Your task to perform on an android device: Turn off the flashlight Image 0: 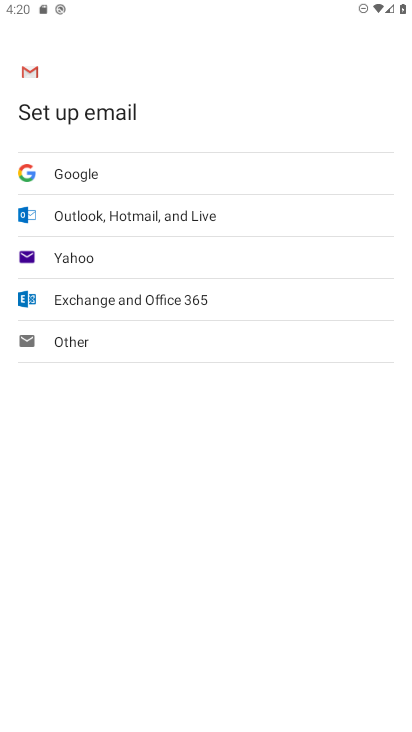
Step 0: press home button
Your task to perform on an android device: Turn off the flashlight Image 1: 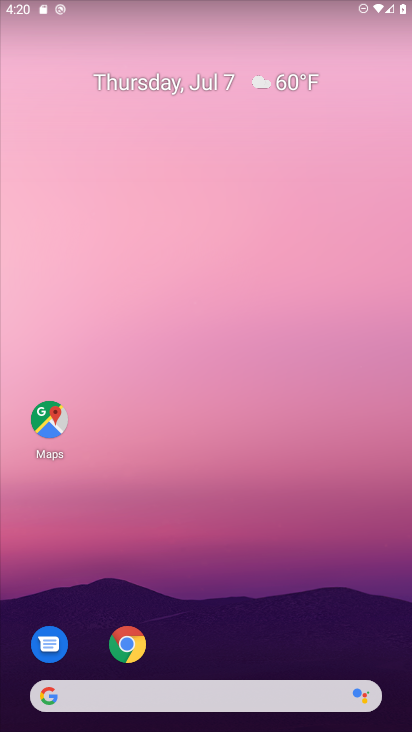
Step 1: drag from (234, 1) to (225, 397)
Your task to perform on an android device: Turn off the flashlight Image 2: 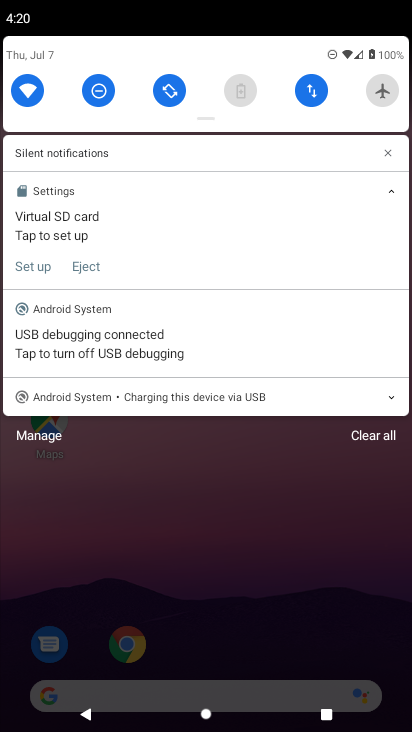
Step 2: drag from (205, 79) to (247, 329)
Your task to perform on an android device: Turn off the flashlight Image 3: 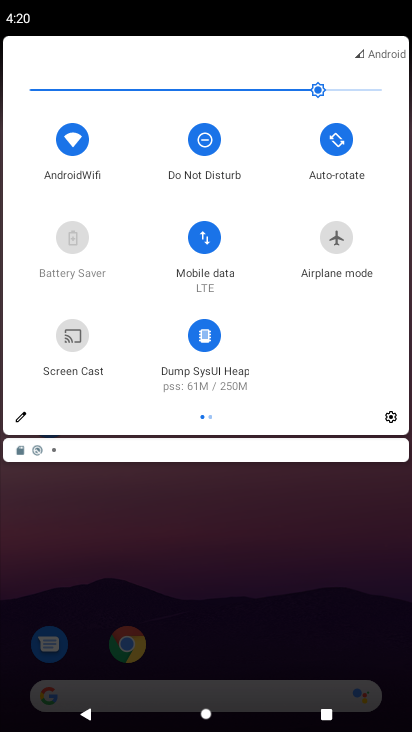
Step 3: drag from (380, 304) to (54, 304)
Your task to perform on an android device: Turn off the flashlight Image 4: 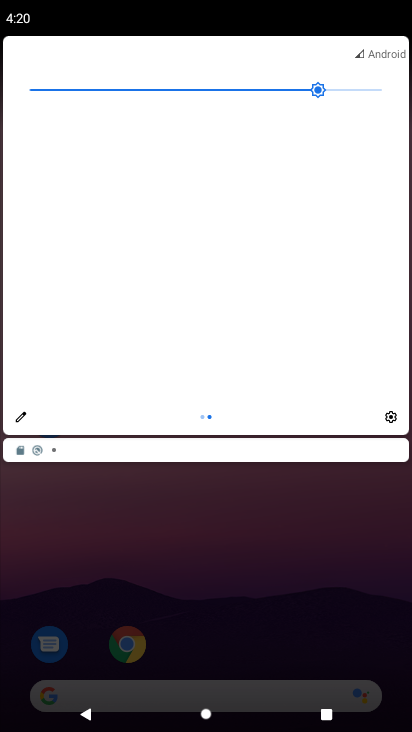
Step 4: click (35, 417)
Your task to perform on an android device: Turn off the flashlight Image 5: 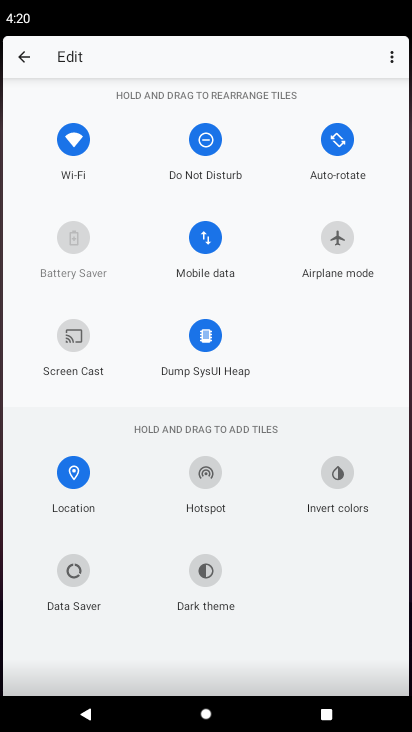
Step 5: task complete